Your task to perform on an android device: find snoozed emails in the gmail app Image 0: 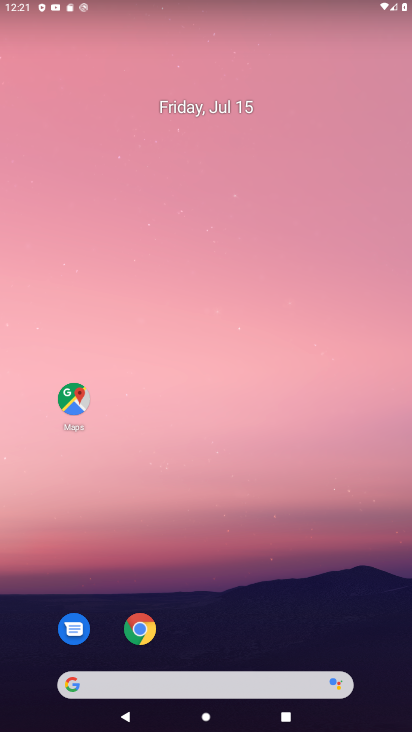
Step 0: drag from (323, 635) to (252, 14)
Your task to perform on an android device: find snoozed emails in the gmail app Image 1: 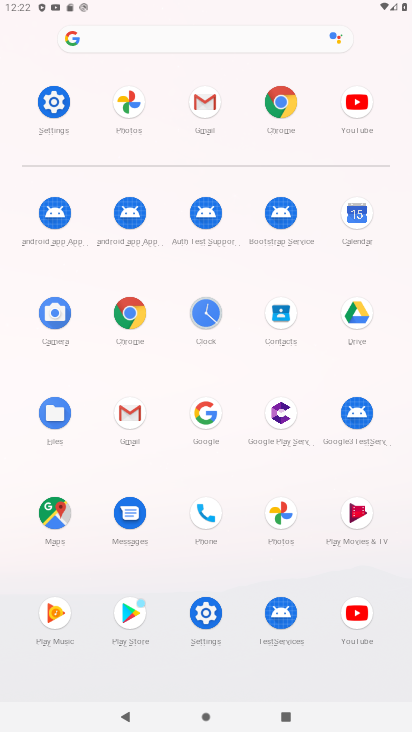
Step 1: click (211, 100)
Your task to perform on an android device: find snoozed emails in the gmail app Image 2: 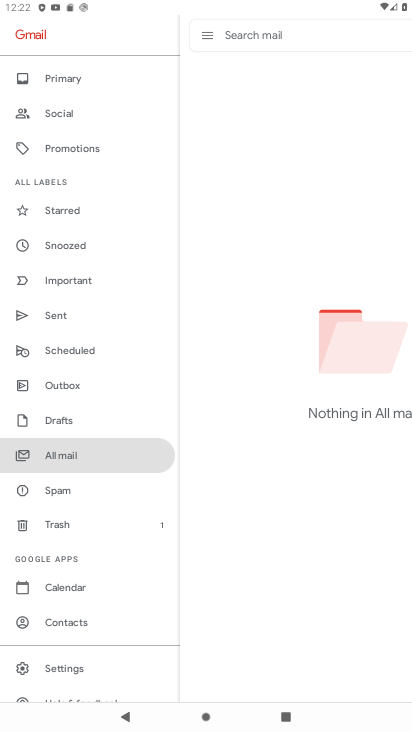
Step 2: drag from (75, 681) to (113, 240)
Your task to perform on an android device: find snoozed emails in the gmail app Image 3: 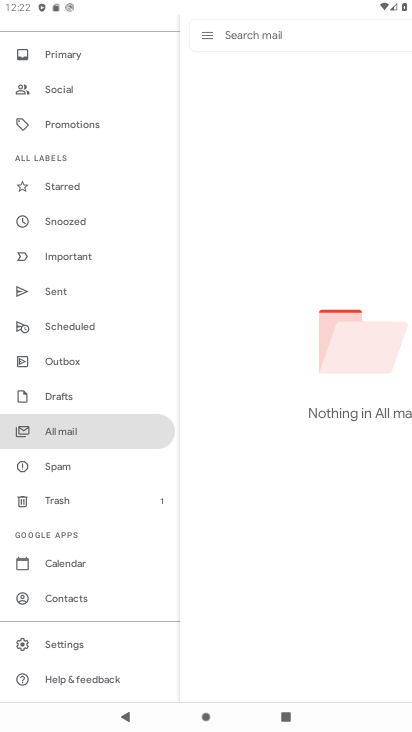
Step 3: click (64, 219)
Your task to perform on an android device: find snoozed emails in the gmail app Image 4: 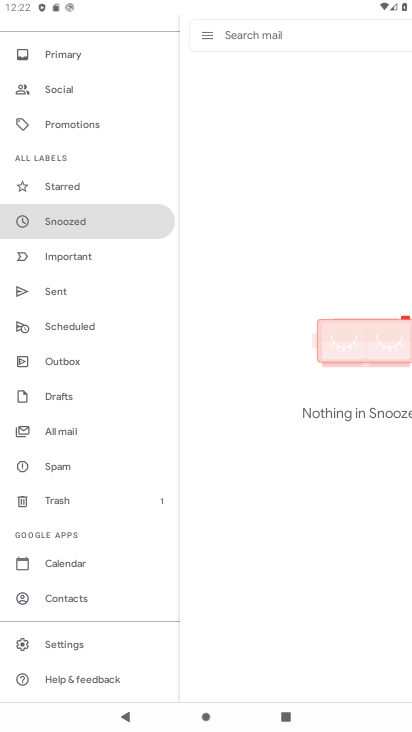
Step 4: task complete